Your task to perform on an android device: open app "Life360: Find Family & Friends" (install if not already installed) and enter user name: "gusts@gmail.com" and password: "assurers" Image 0: 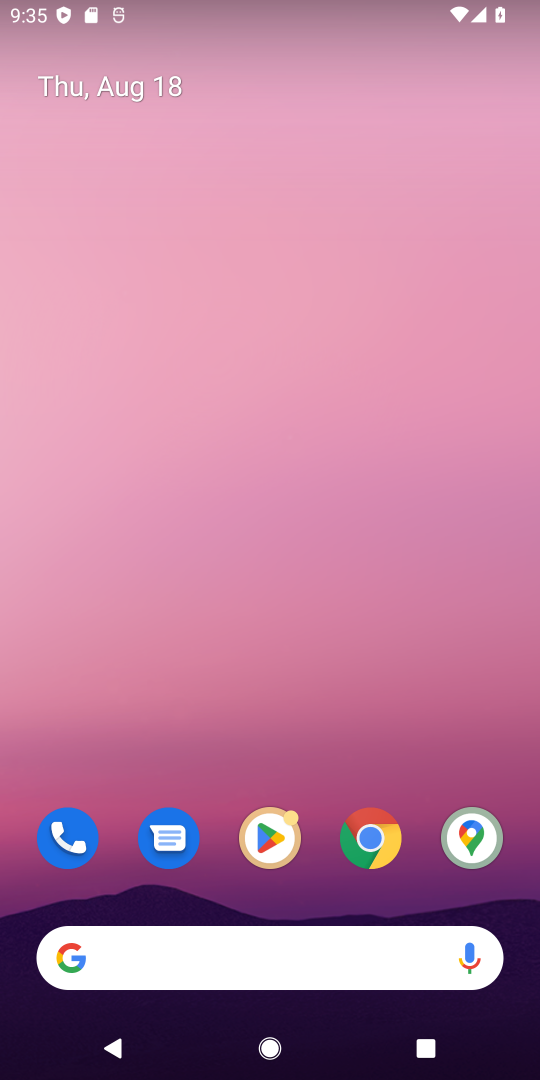
Step 0: click (287, 817)
Your task to perform on an android device: open app "Life360: Find Family & Friends" (install if not already installed) and enter user name: "gusts@gmail.com" and password: "assurers" Image 1: 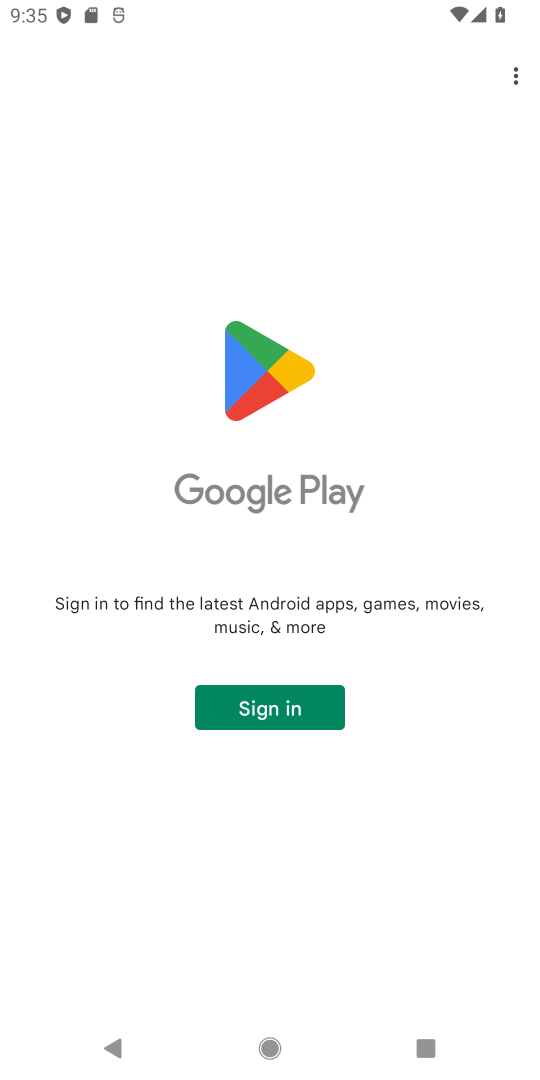
Step 1: click (271, 713)
Your task to perform on an android device: open app "Life360: Find Family & Friends" (install if not already installed) and enter user name: "gusts@gmail.com" and password: "assurers" Image 2: 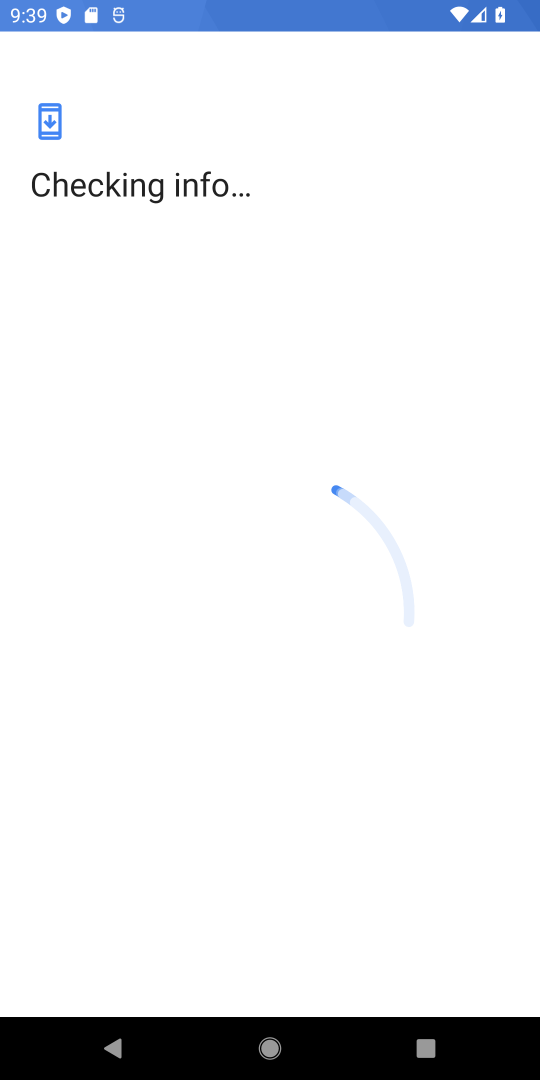
Step 2: task complete